Your task to perform on an android device: Open calendar and show me the first week of next month Image 0: 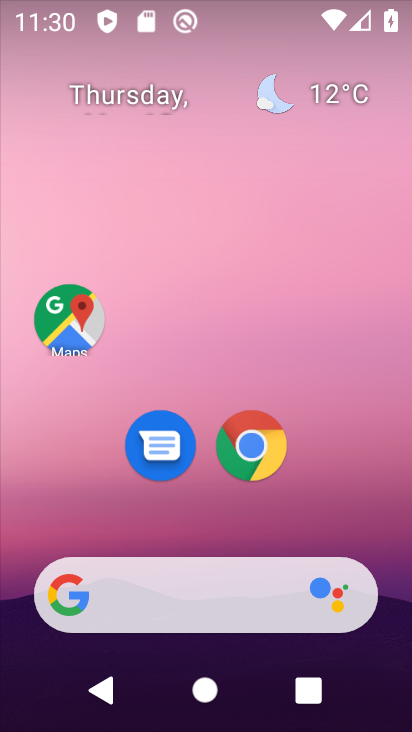
Step 0: drag from (192, 583) to (126, 88)
Your task to perform on an android device: Open calendar and show me the first week of next month Image 1: 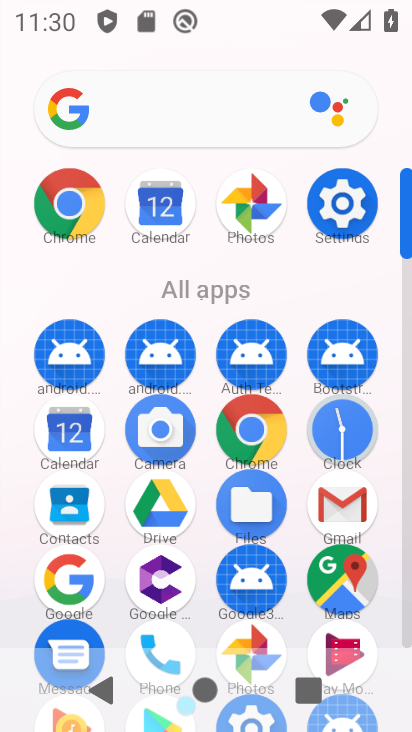
Step 1: click (74, 455)
Your task to perform on an android device: Open calendar and show me the first week of next month Image 2: 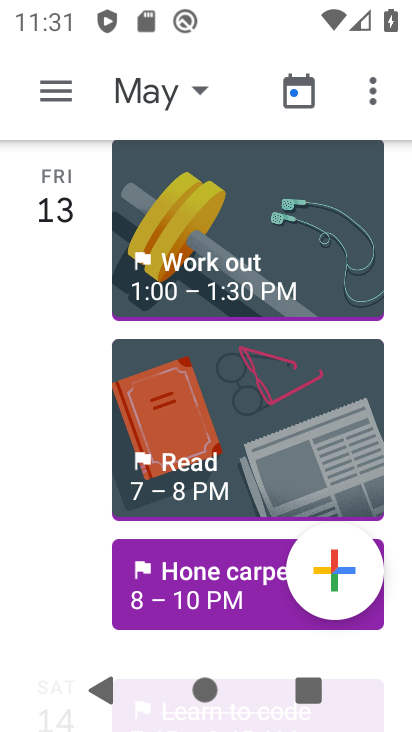
Step 2: click (57, 92)
Your task to perform on an android device: Open calendar and show me the first week of next month Image 3: 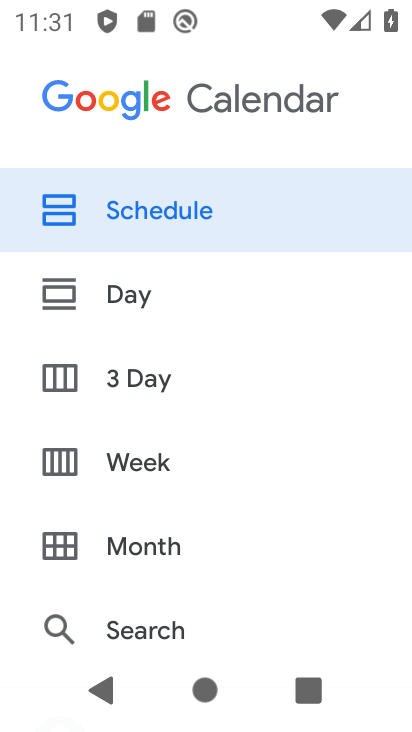
Step 3: click (148, 527)
Your task to perform on an android device: Open calendar and show me the first week of next month Image 4: 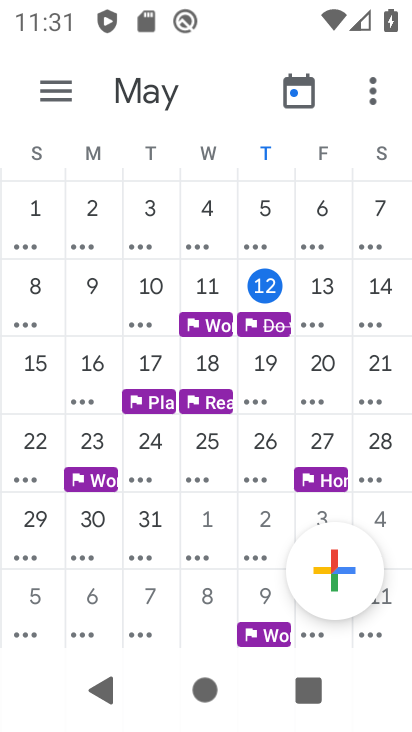
Step 4: task complete